Your task to perform on an android device: move a message to another label in the gmail app Image 0: 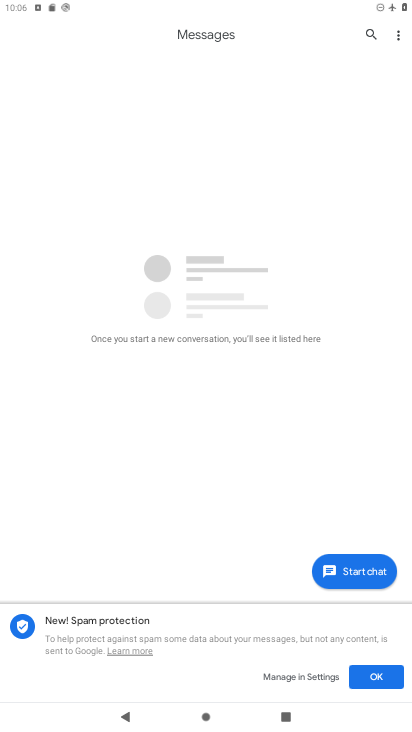
Step 0: press home button
Your task to perform on an android device: move a message to another label in the gmail app Image 1: 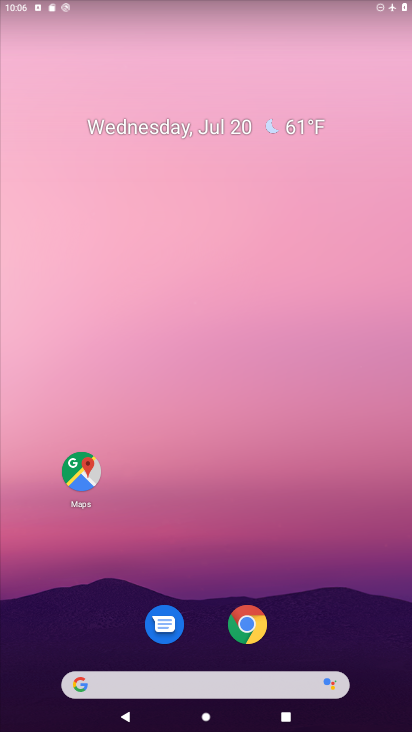
Step 1: drag from (193, 580) to (195, 125)
Your task to perform on an android device: move a message to another label in the gmail app Image 2: 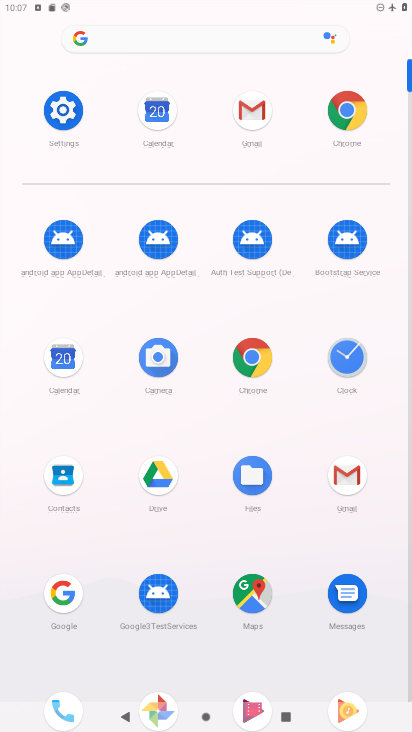
Step 2: click (245, 126)
Your task to perform on an android device: move a message to another label in the gmail app Image 3: 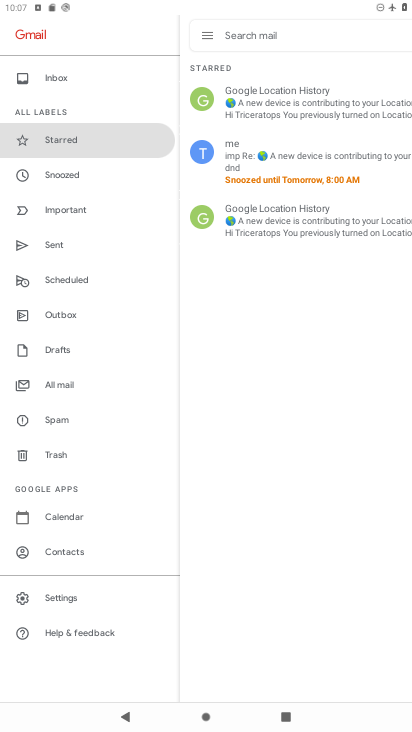
Step 3: click (285, 122)
Your task to perform on an android device: move a message to another label in the gmail app Image 4: 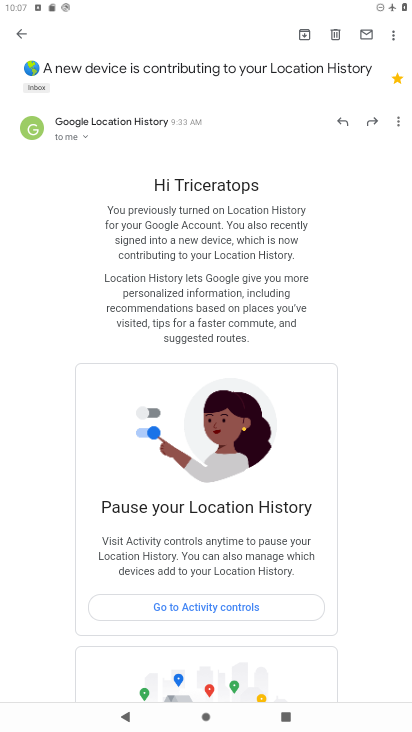
Step 4: click (387, 26)
Your task to perform on an android device: move a message to another label in the gmail app Image 5: 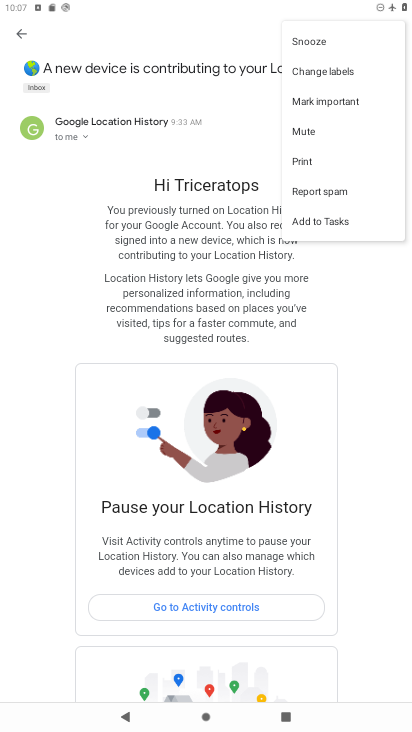
Step 5: click (352, 75)
Your task to perform on an android device: move a message to another label in the gmail app Image 6: 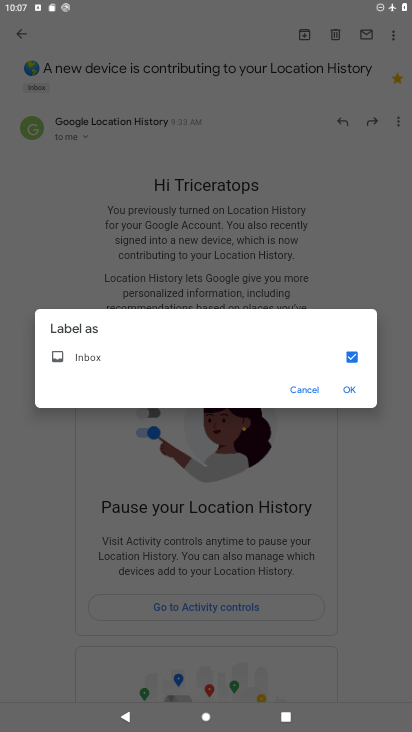
Step 6: click (346, 384)
Your task to perform on an android device: move a message to another label in the gmail app Image 7: 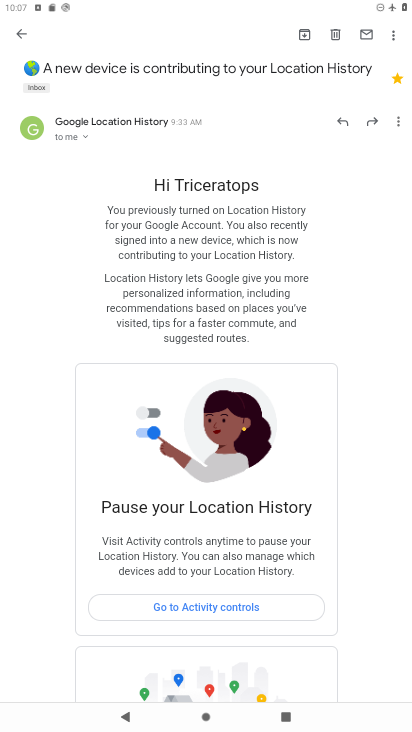
Step 7: task complete